Your task to perform on an android device: turn off javascript in the chrome app Image 0: 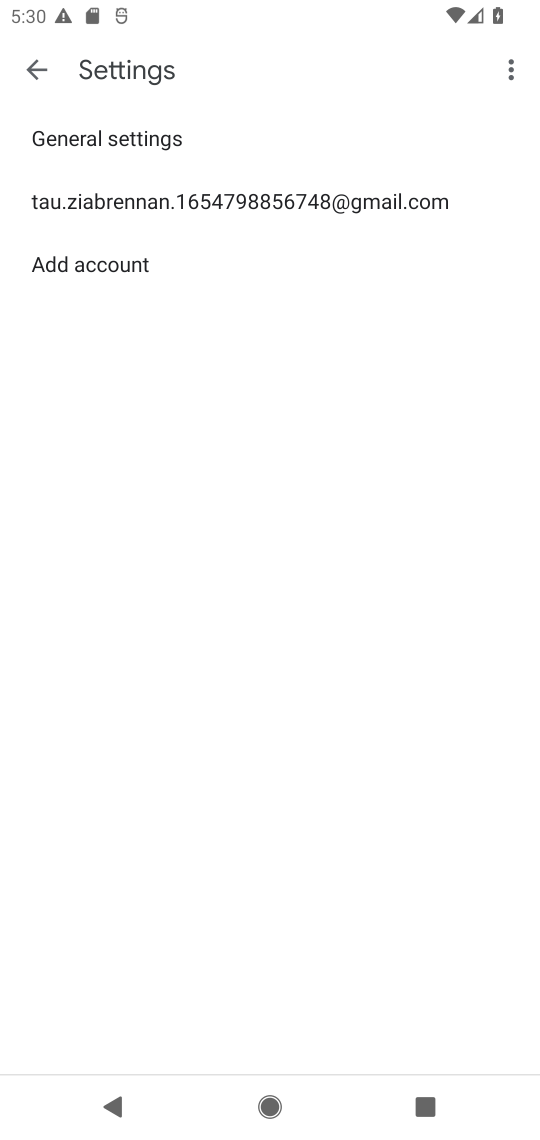
Step 0: press home button
Your task to perform on an android device: turn off javascript in the chrome app Image 1: 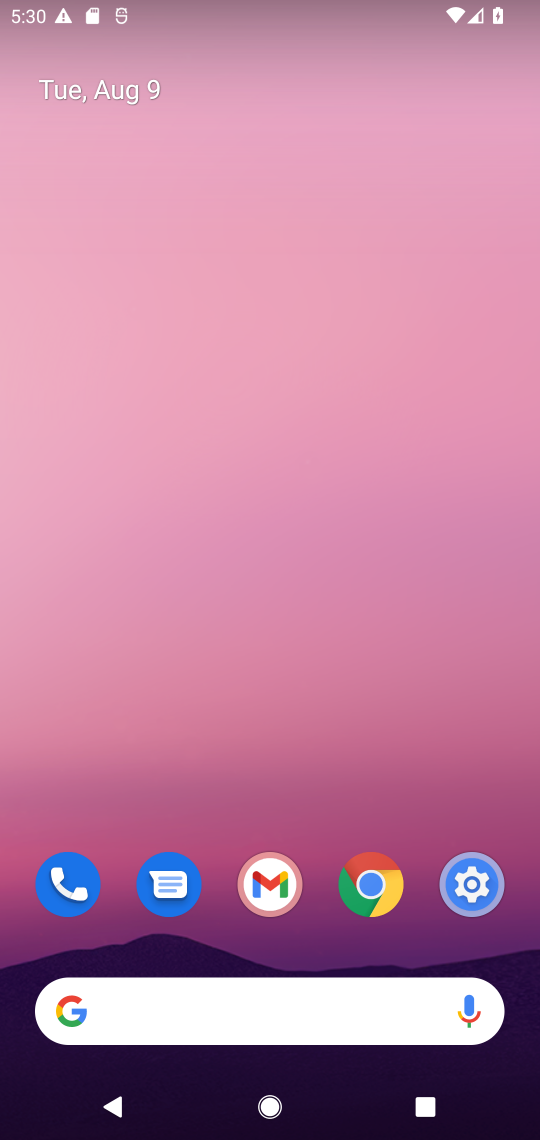
Step 1: click (370, 886)
Your task to perform on an android device: turn off javascript in the chrome app Image 2: 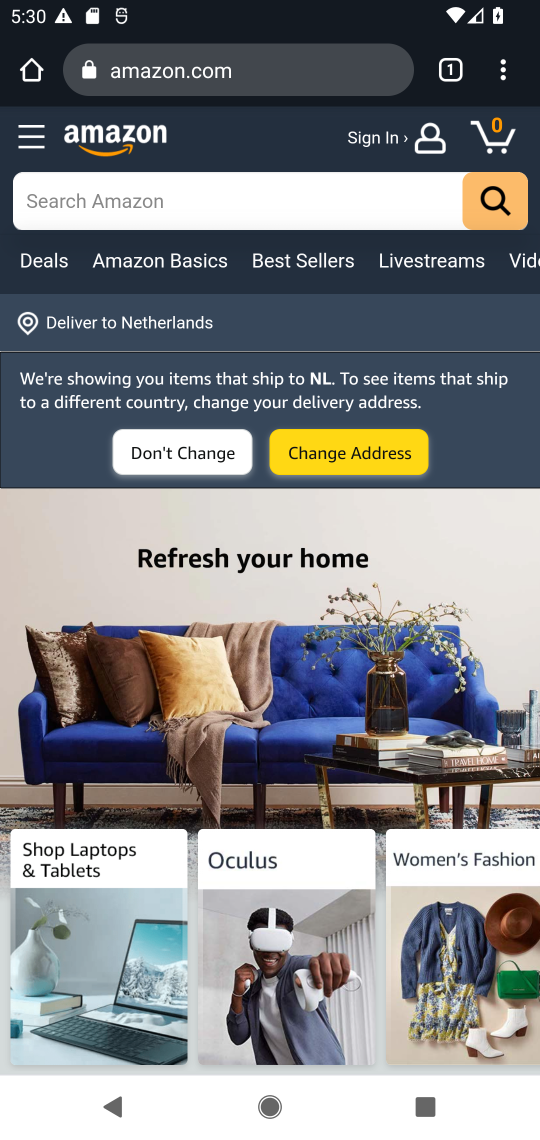
Step 2: drag from (505, 71) to (326, 844)
Your task to perform on an android device: turn off javascript in the chrome app Image 3: 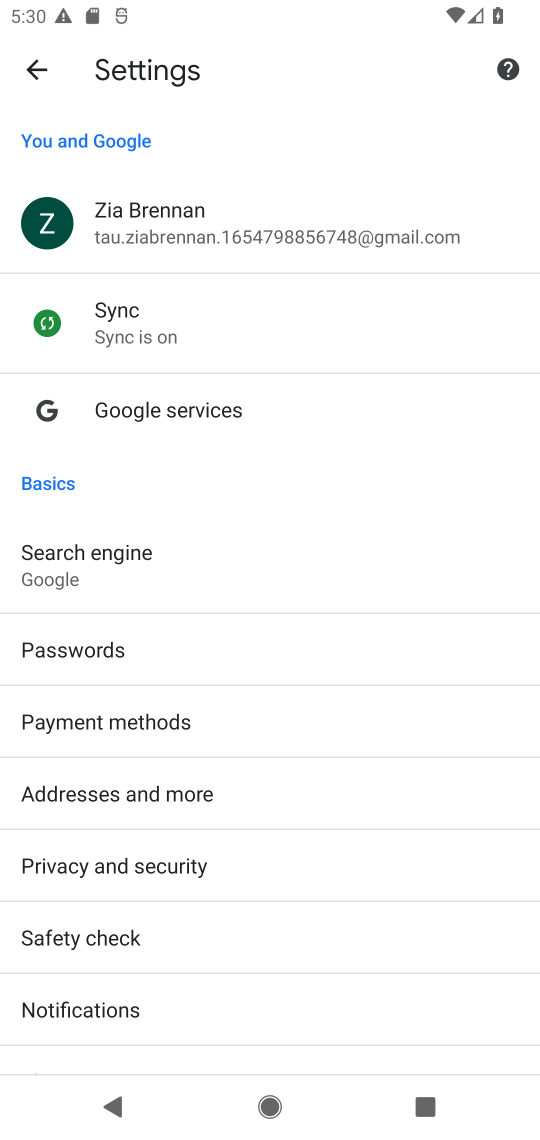
Step 3: drag from (181, 992) to (371, 565)
Your task to perform on an android device: turn off javascript in the chrome app Image 4: 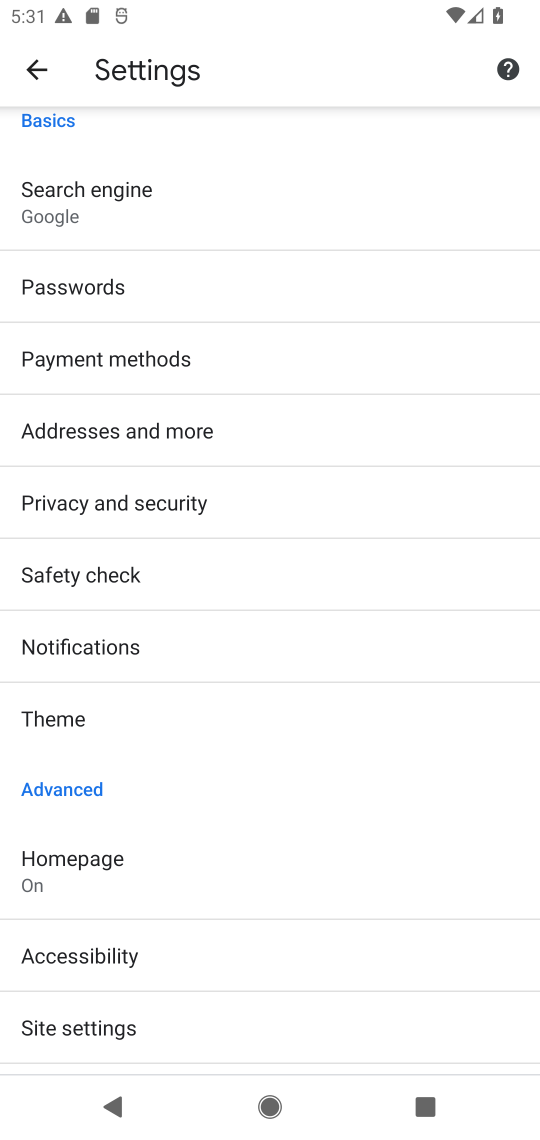
Step 4: click (86, 1023)
Your task to perform on an android device: turn off javascript in the chrome app Image 5: 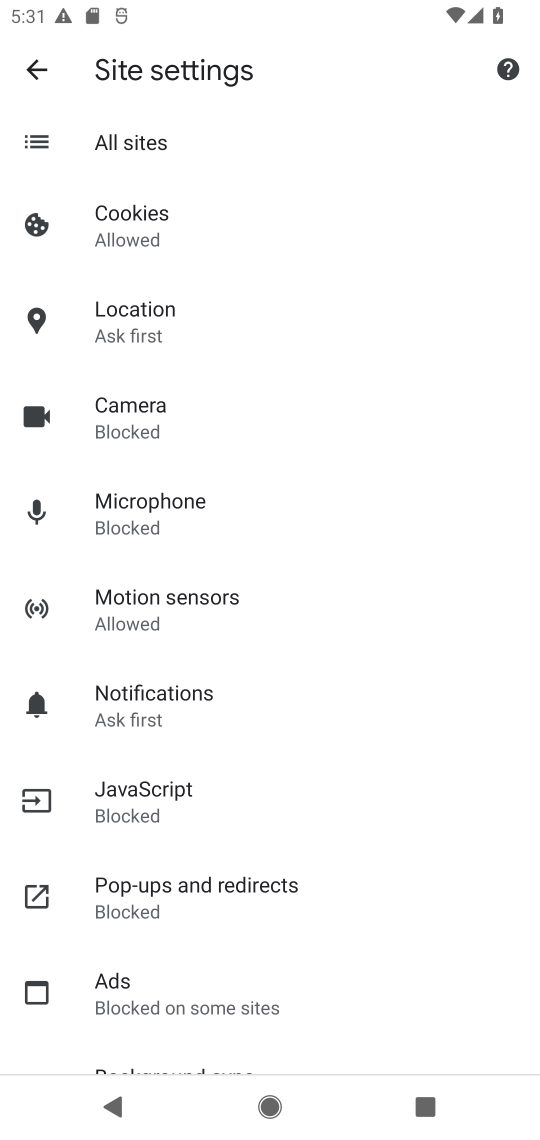
Step 5: click (172, 784)
Your task to perform on an android device: turn off javascript in the chrome app Image 6: 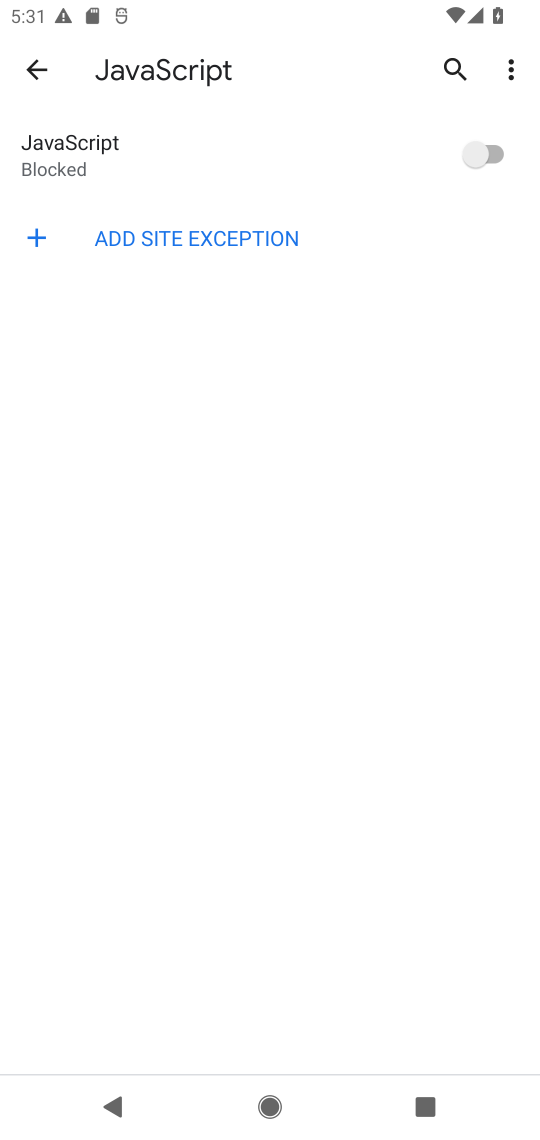
Step 6: task complete